Your task to perform on an android device: Go to internet settings Image 0: 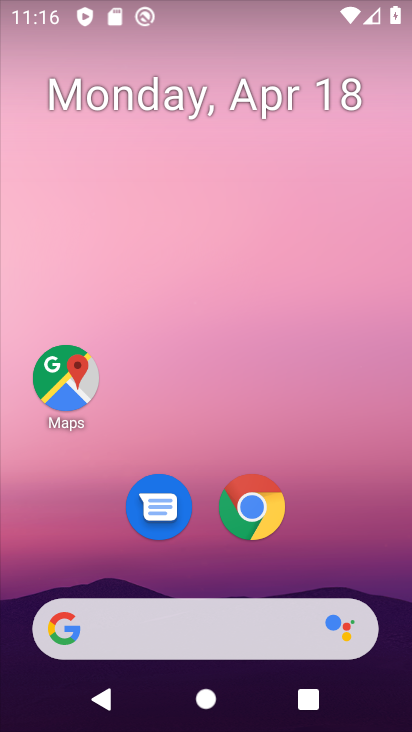
Step 0: drag from (313, 529) to (322, 153)
Your task to perform on an android device: Go to internet settings Image 1: 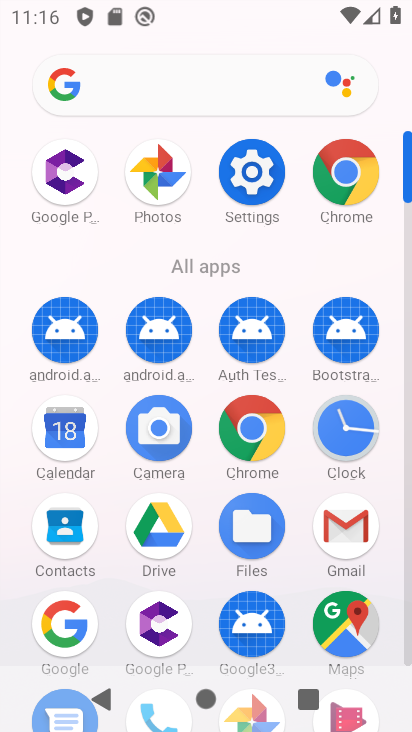
Step 1: click (256, 184)
Your task to perform on an android device: Go to internet settings Image 2: 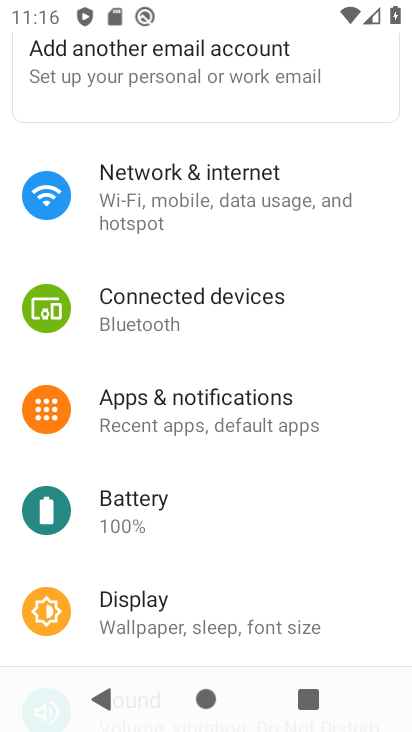
Step 2: click (264, 200)
Your task to perform on an android device: Go to internet settings Image 3: 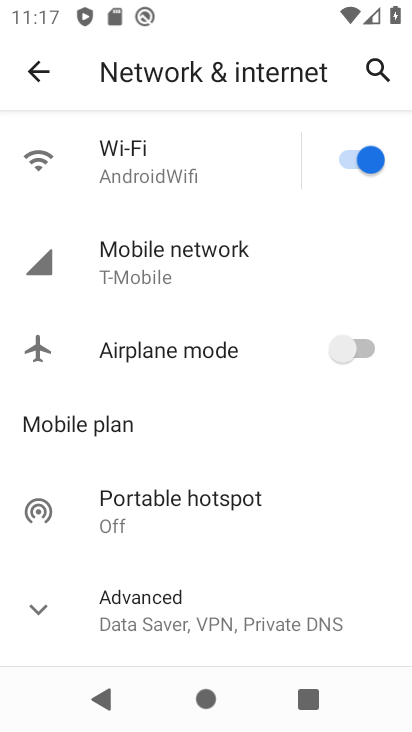
Step 3: task complete